Your task to perform on an android device: Open Reddit.com Image 0: 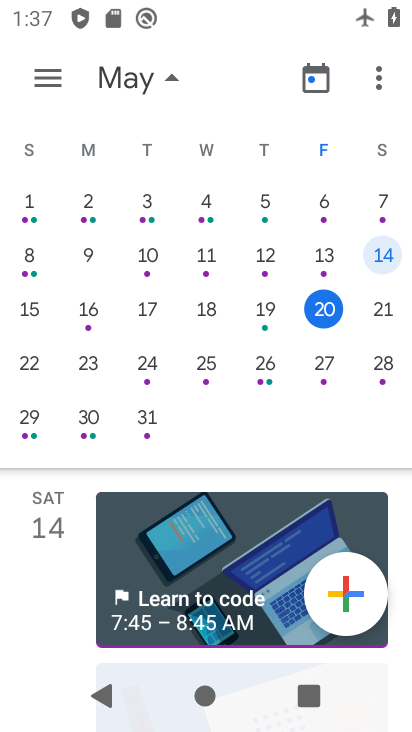
Step 0: press home button
Your task to perform on an android device: Open Reddit.com Image 1: 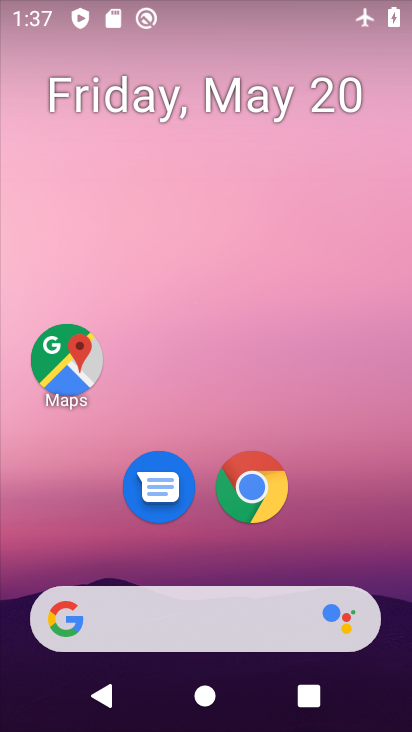
Step 1: drag from (312, 550) to (250, 110)
Your task to perform on an android device: Open Reddit.com Image 2: 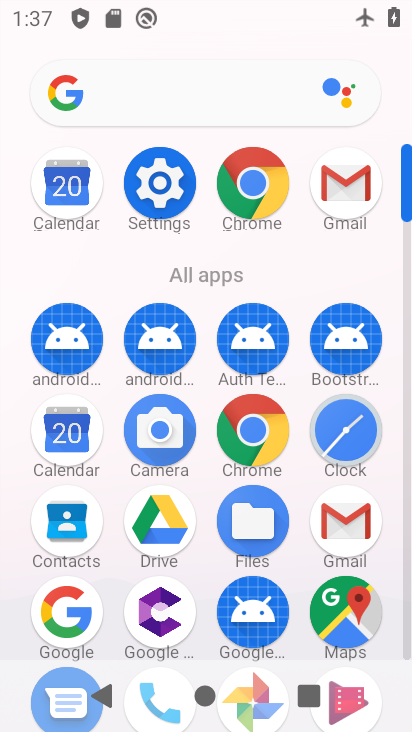
Step 2: click (220, 183)
Your task to perform on an android device: Open Reddit.com Image 3: 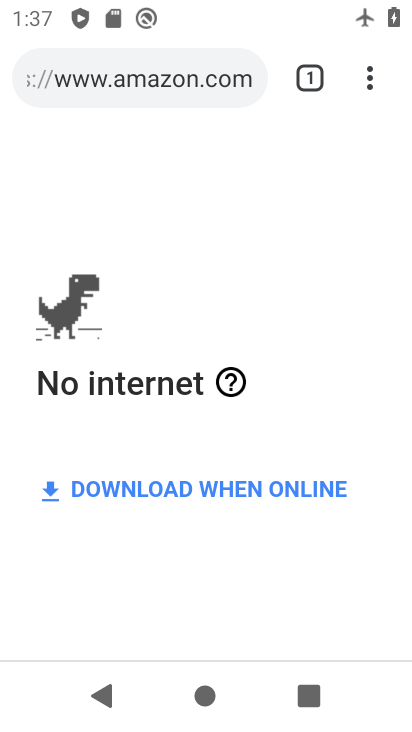
Step 3: task complete